Your task to perform on an android device: Search for the best rated wireless headphones on Amazon. Image 0: 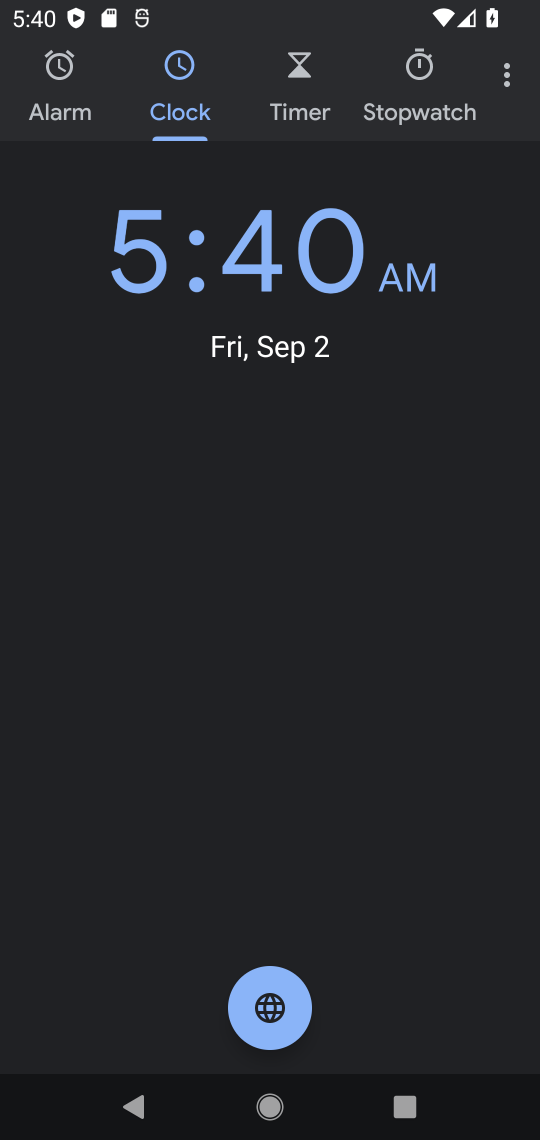
Step 0: press home button
Your task to perform on an android device: Search for the best rated wireless headphones on Amazon. Image 1: 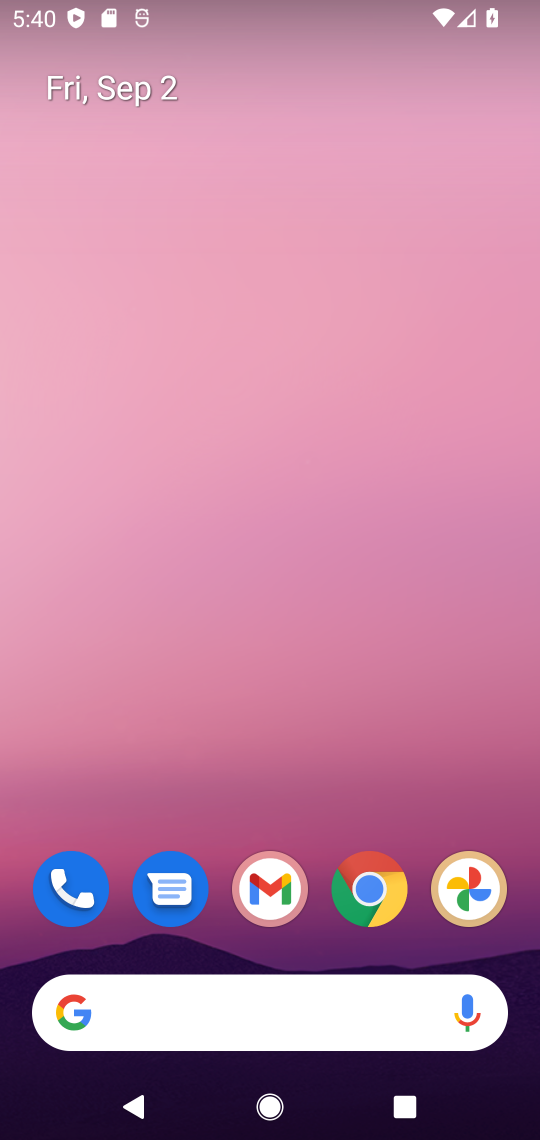
Step 1: click (301, 1007)
Your task to perform on an android device: Search for the best rated wireless headphones on Amazon. Image 2: 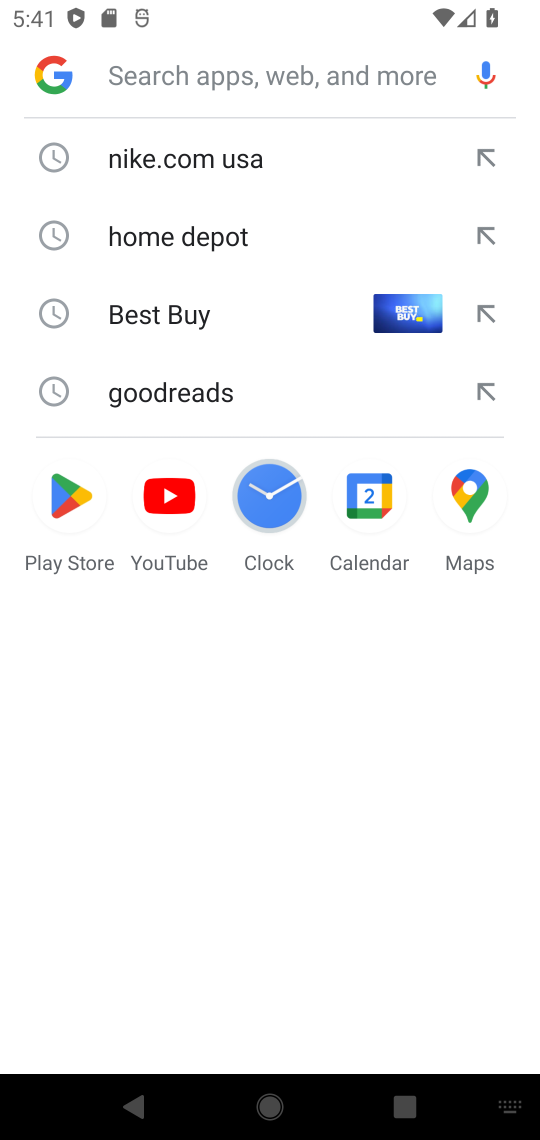
Step 2: type "Amazon"
Your task to perform on an android device: Search for the best rated wireless headphones on Amazon. Image 3: 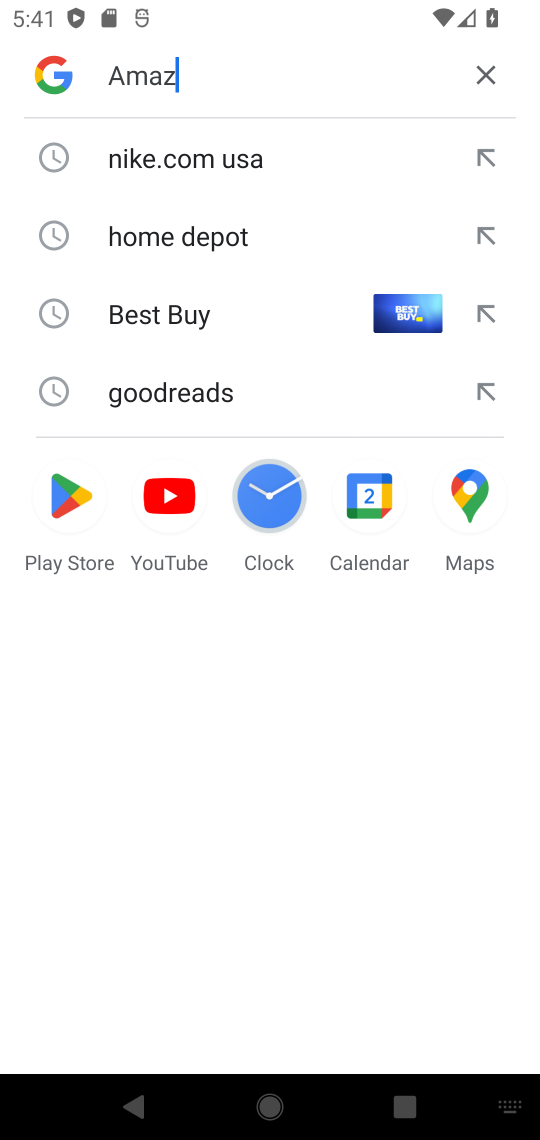
Step 3: type ""
Your task to perform on an android device: Search for the best rated wireless headphones on Amazon. Image 4: 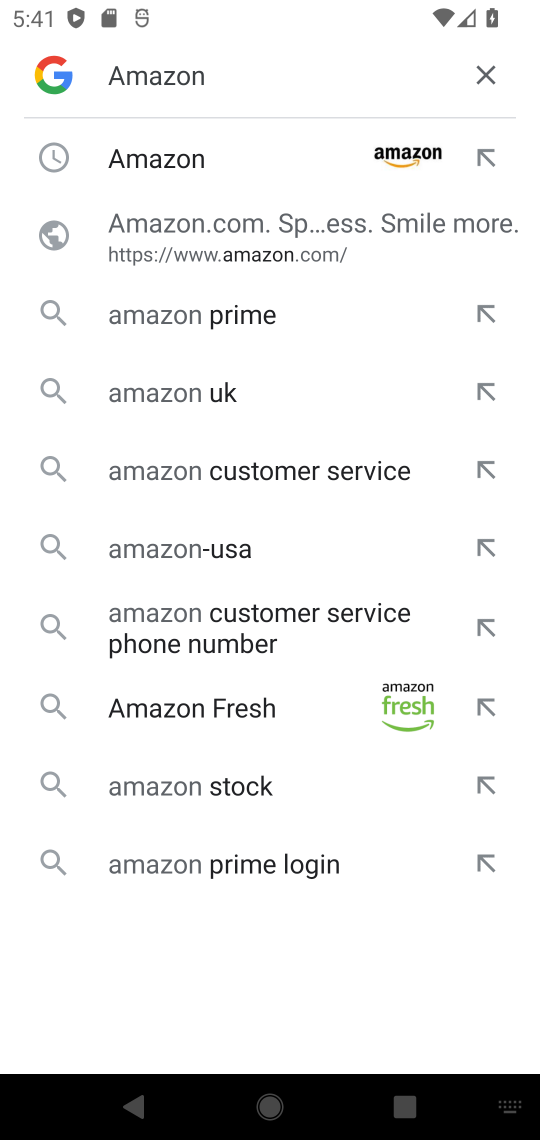
Step 4: click (218, 172)
Your task to perform on an android device: Search for the best rated wireless headphones on Amazon. Image 5: 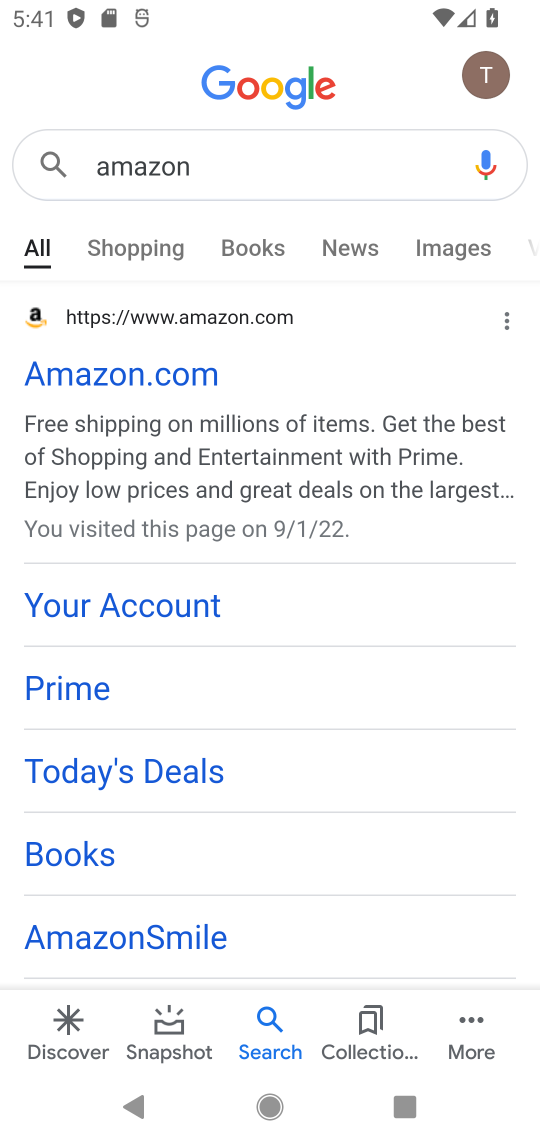
Step 5: click (130, 379)
Your task to perform on an android device: Search for the best rated wireless headphones on Amazon. Image 6: 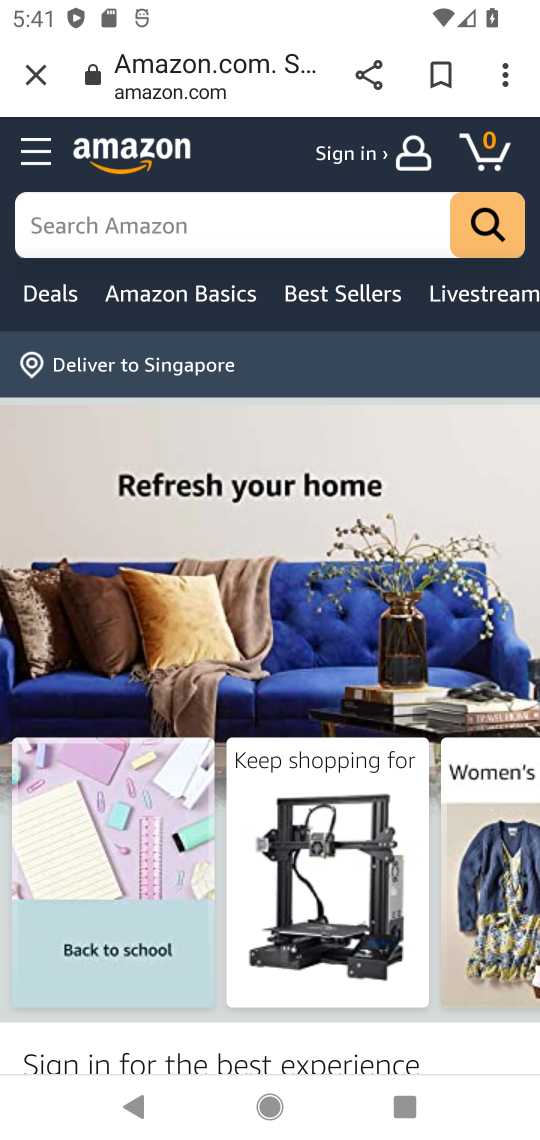
Step 6: click (206, 242)
Your task to perform on an android device: Search for the best rated wireless headphones on Amazon. Image 7: 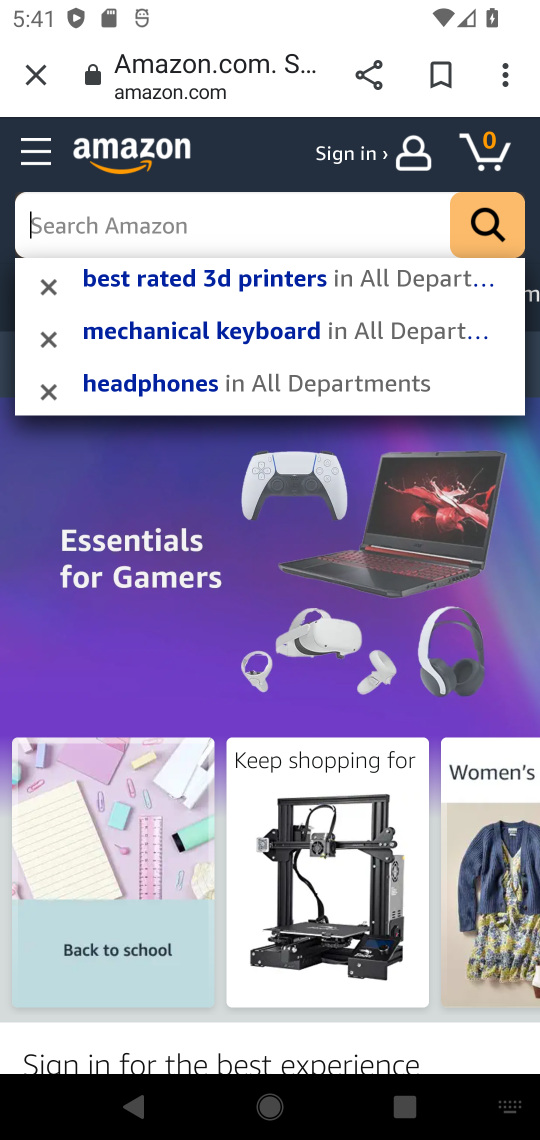
Step 7: type "best rated wireless headphones"
Your task to perform on an android device: Search for the best rated wireless headphones on Amazon. Image 8: 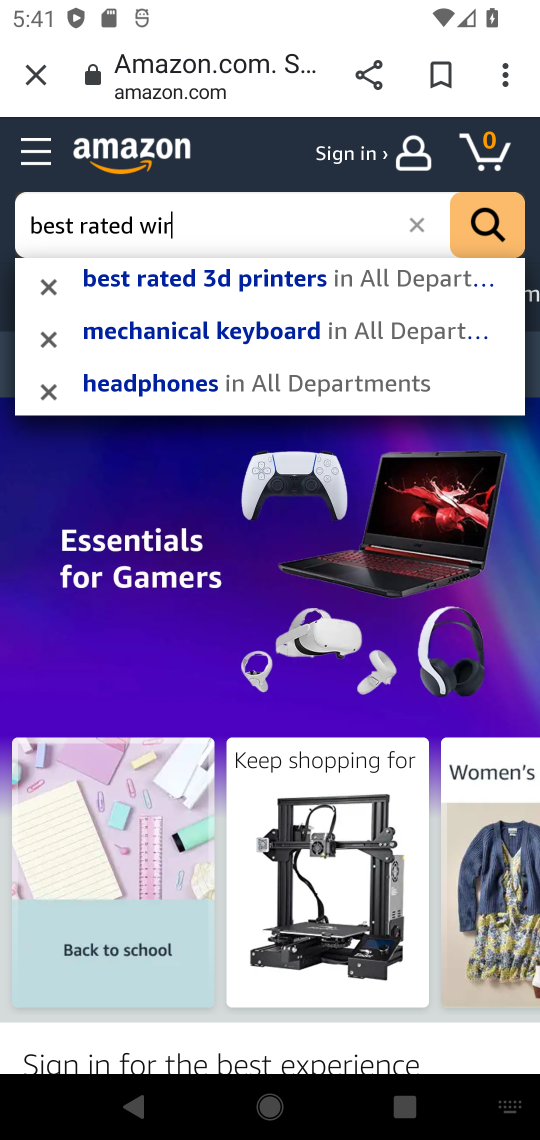
Step 8: type ""
Your task to perform on an android device: Search for the best rated wireless headphones on Amazon. Image 9: 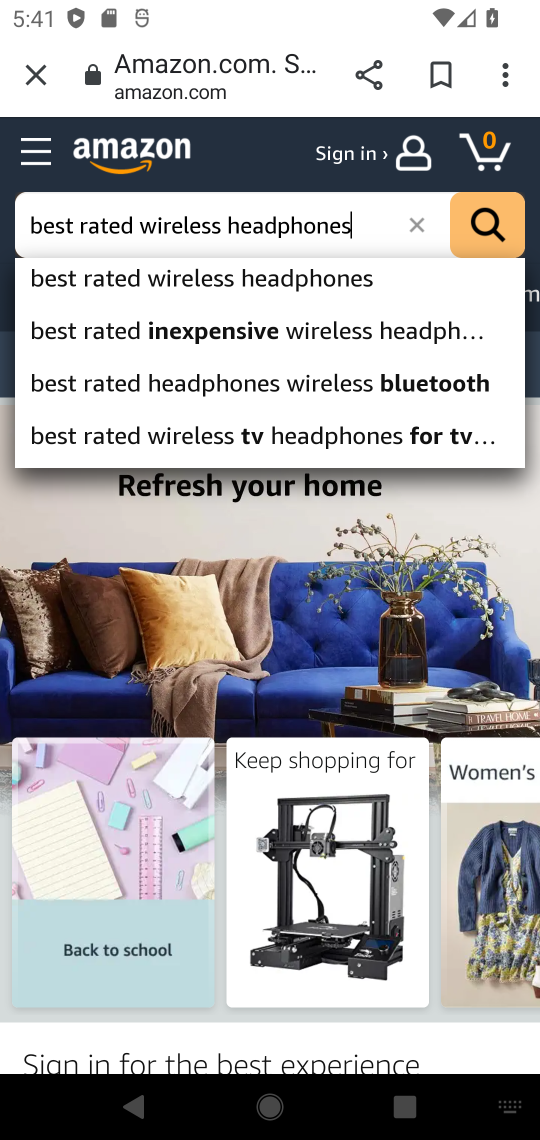
Step 9: click (245, 280)
Your task to perform on an android device: Search for the best rated wireless headphones on Amazon. Image 10: 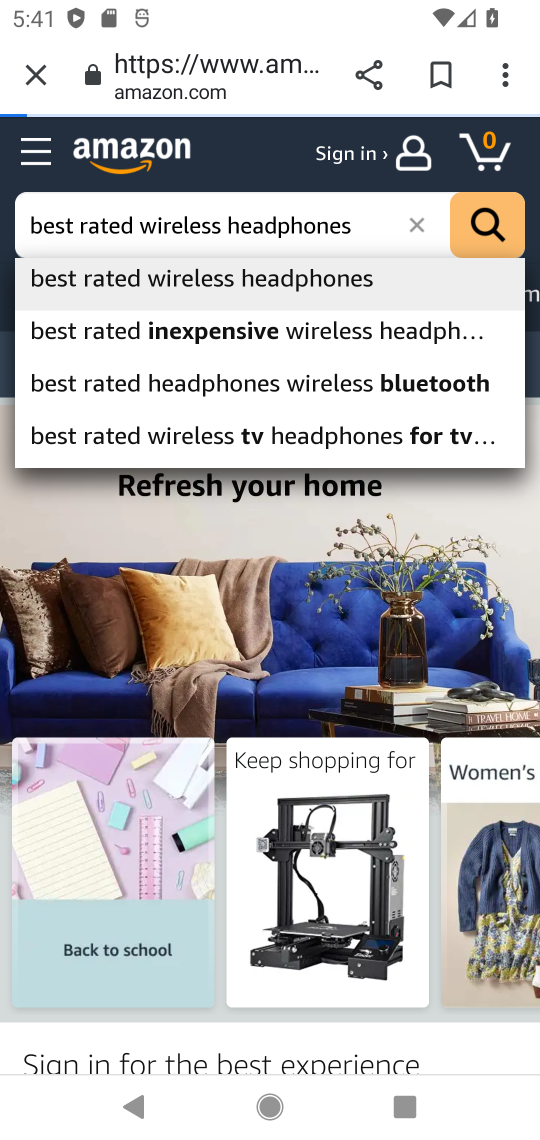
Step 10: click (490, 223)
Your task to perform on an android device: Search for the best rated wireless headphones on Amazon. Image 11: 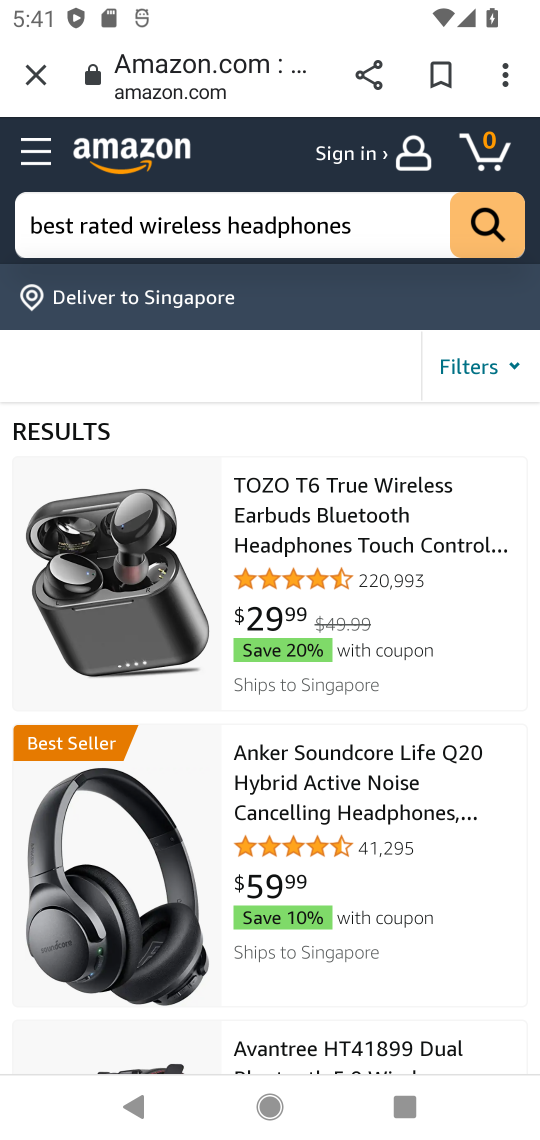
Step 11: drag from (410, 930) to (416, 439)
Your task to perform on an android device: Search for the best rated wireless headphones on Amazon. Image 12: 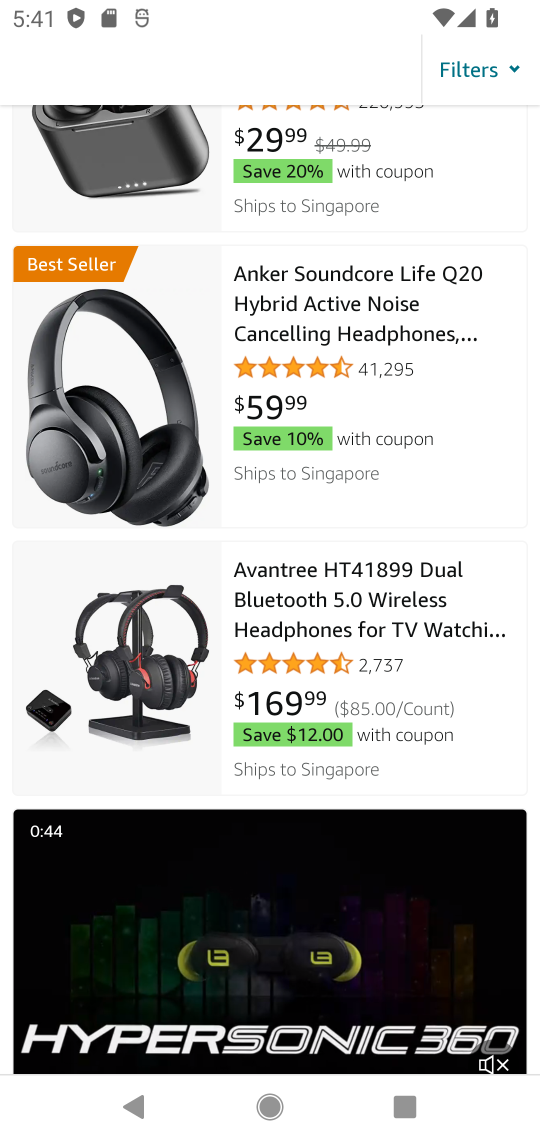
Step 12: drag from (388, 597) to (435, 106)
Your task to perform on an android device: Search for the best rated wireless headphones on Amazon. Image 13: 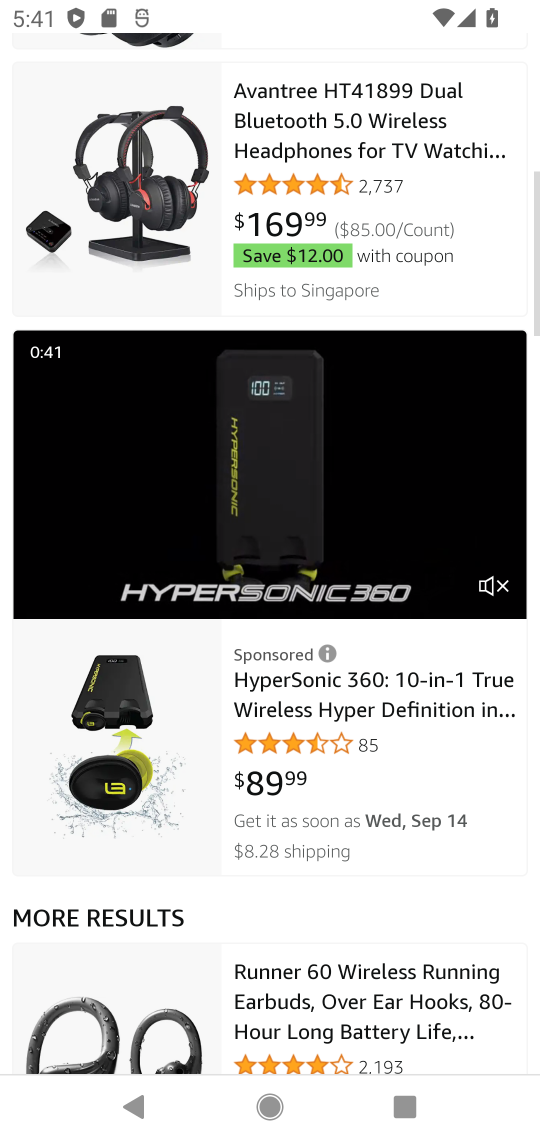
Step 13: click (355, 327)
Your task to perform on an android device: Search for the best rated wireless headphones on Amazon. Image 14: 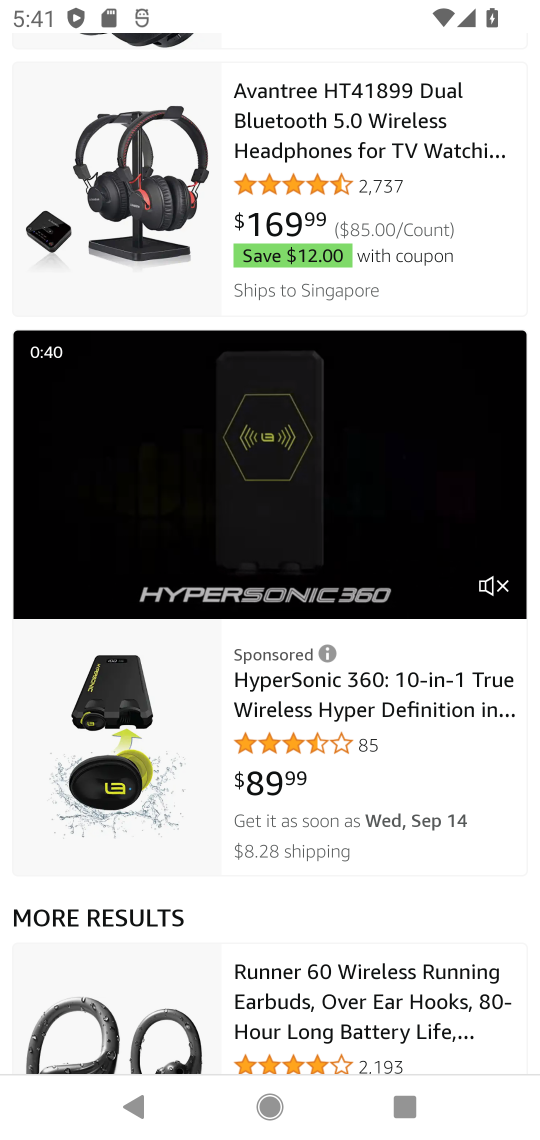
Step 14: task complete